Your task to perform on an android device: See recent photos Image 0: 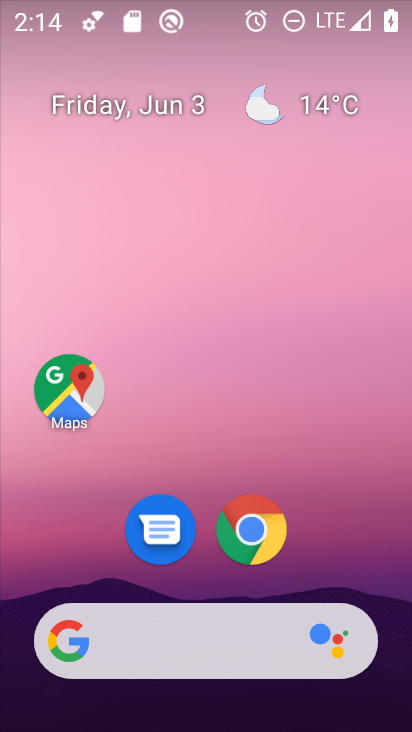
Step 0: drag from (375, 556) to (361, 244)
Your task to perform on an android device: See recent photos Image 1: 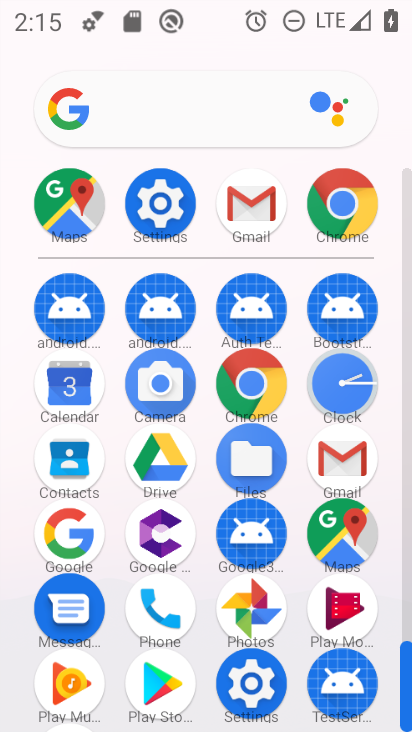
Step 1: click (267, 606)
Your task to perform on an android device: See recent photos Image 2: 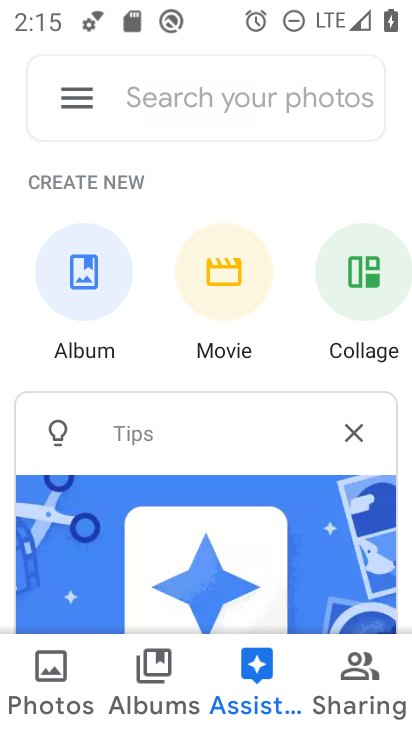
Step 2: click (71, 683)
Your task to perform on an android device: See recent photos Image 3: 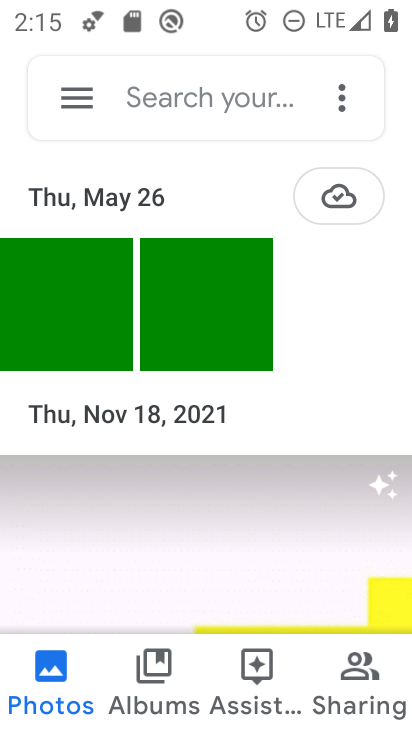
Step 3: click (77, 310)
Your task to perform on an android device: See recent photos Image 4: 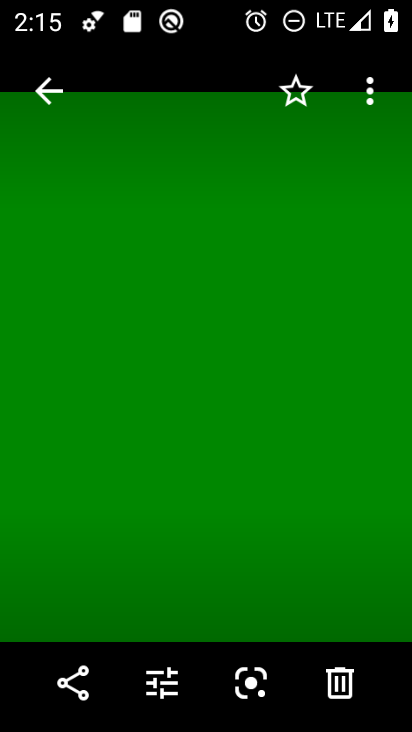
Step 4: task complete